Your task to perform on an android device: Open settings Image 0: 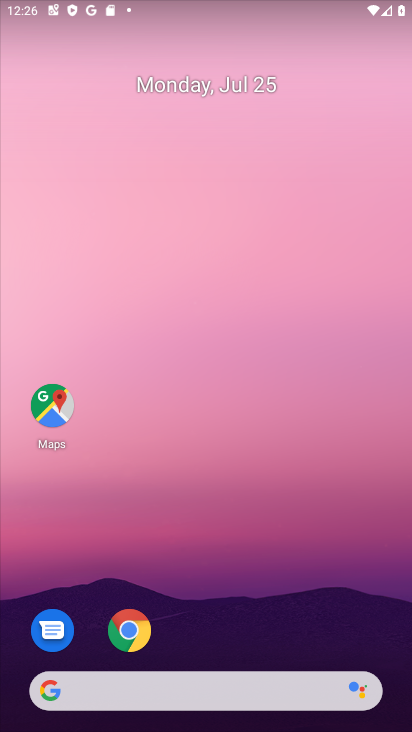
Step 0: drag from (202, 510) to (115, 53)
Your task to perform on an android device: Open settings Image 1: 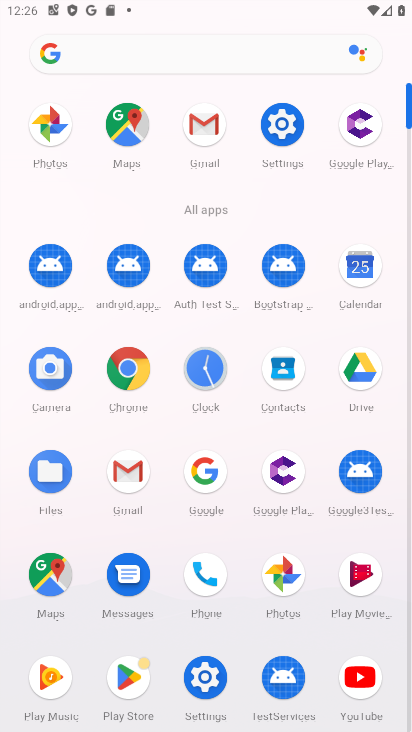
Step 1: click (280, 133)
Your task to perform on an android device: Open settings Image 2: 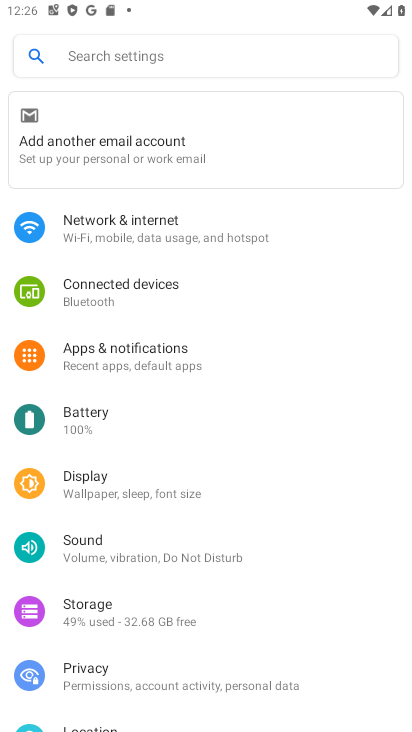
Step 2: click (130, 682)
Your task to perform on an android device: Open settings Image 3: 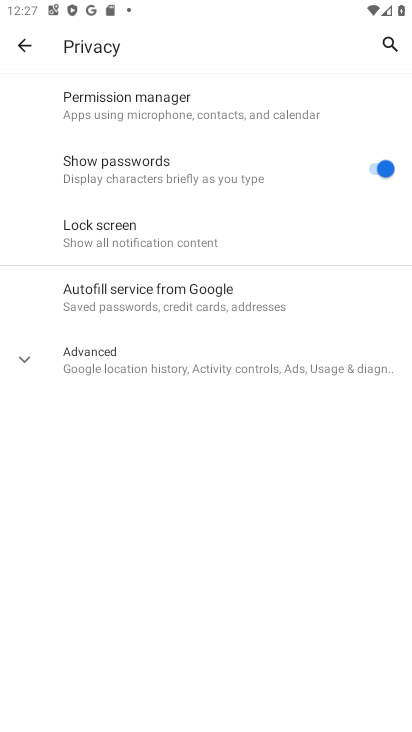
Step 3: click (28, 46)
Your task to perform on an android device: Open settings Image 4: 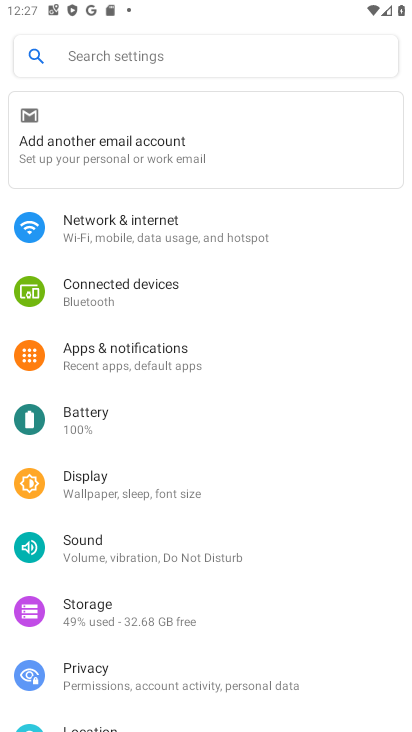
Step 4: task complete